Your task to perform on an android device: Show me productivity apps on the Play Store Image 0: 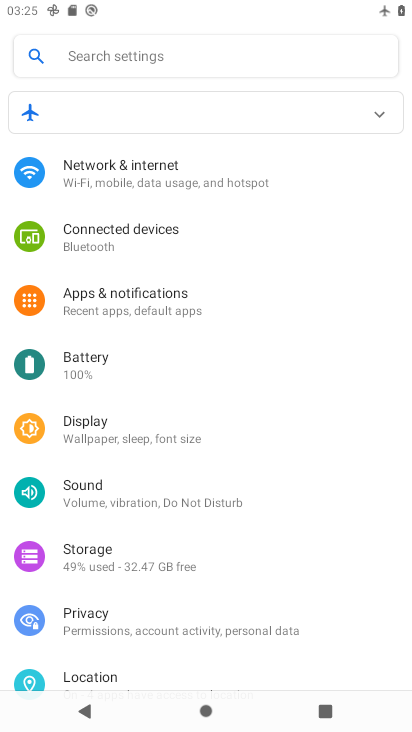
Step 0: press home button
Your task to perform on an android device: Show me productivity apps on the Play Store Image 1: 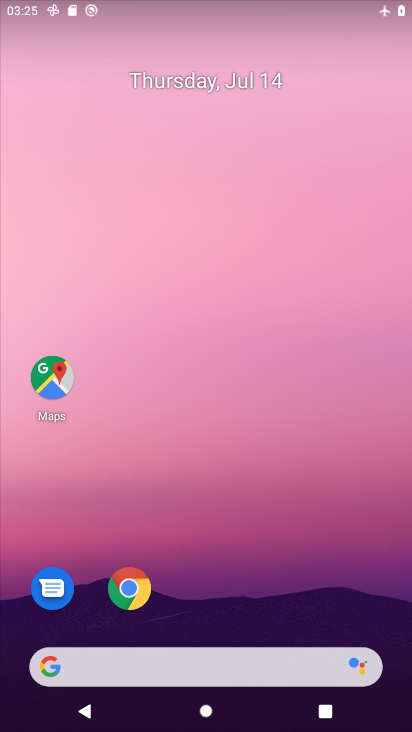
Step 1: drag from (209, 623) to (149, 116)
Your task to perform on an android device: Show me productivity apps on the Play Store Image 2: 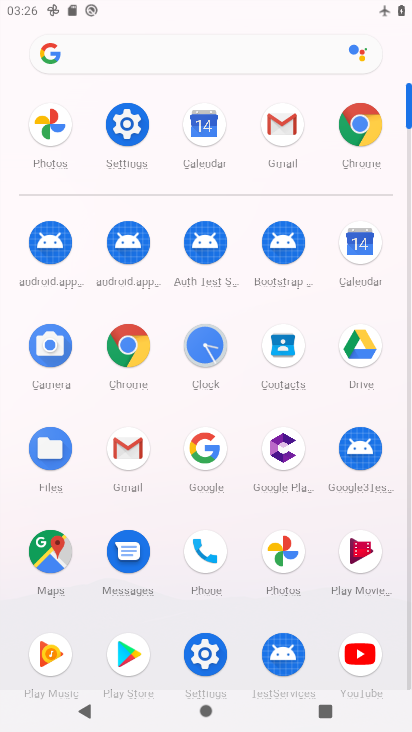
Step 2: click (134, 644)
Your task to perform on an android device: Show me productivity apps on the Play Store Image 3: 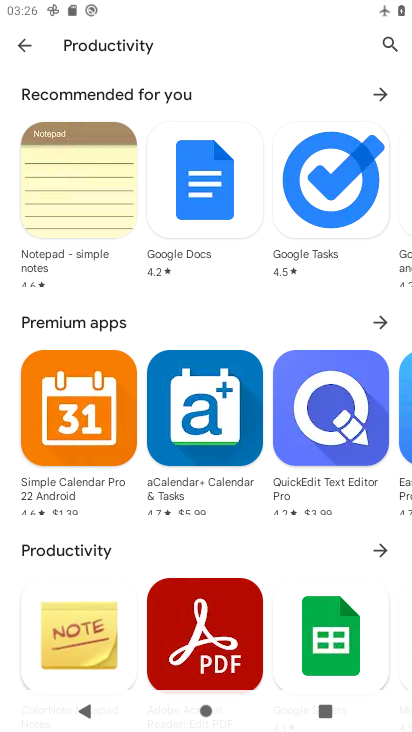
Step 3: task complete